Your task to perform on an android device: Go to privacy settings Image 0: 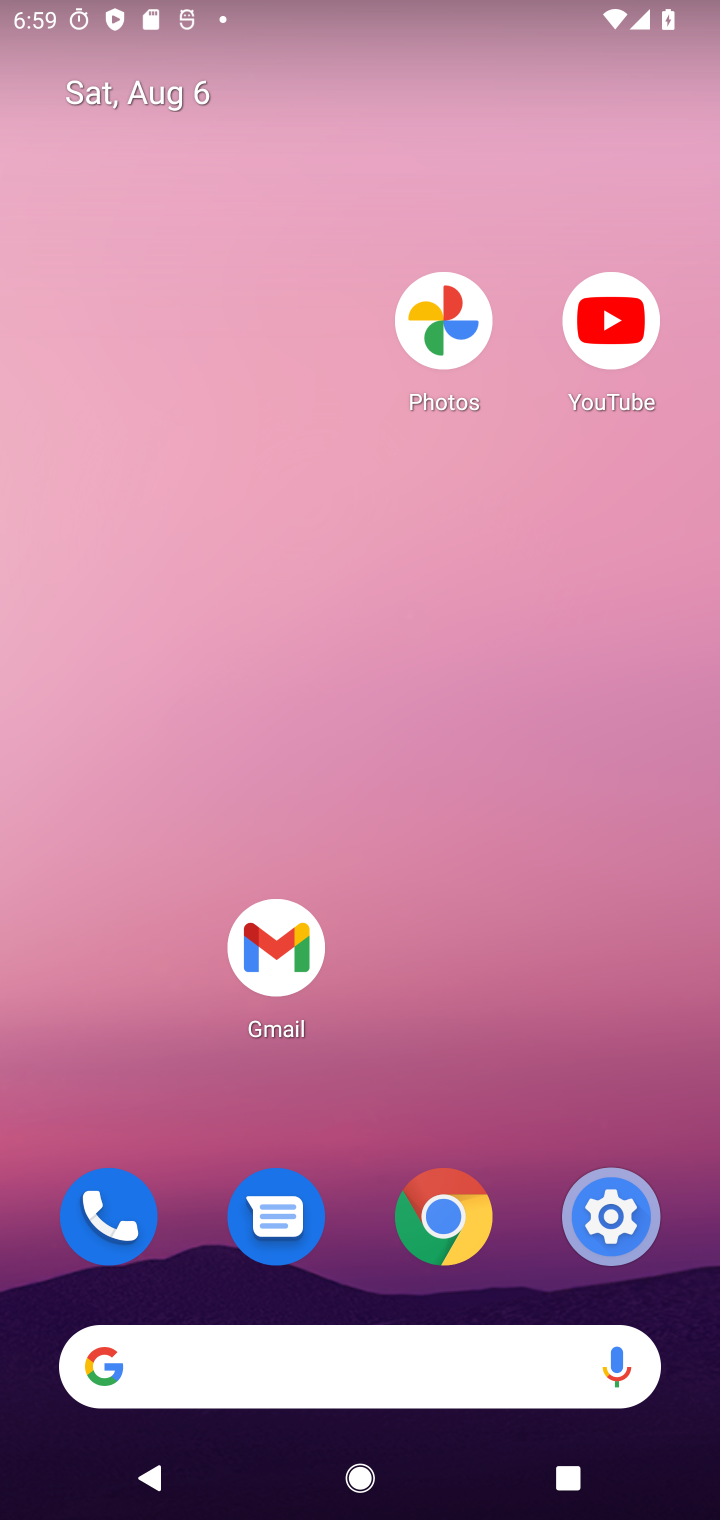
Step 0: drag from (499, 812) to (546, 98)
Your task to perform on an android device: Go to privacy settings Image 1: 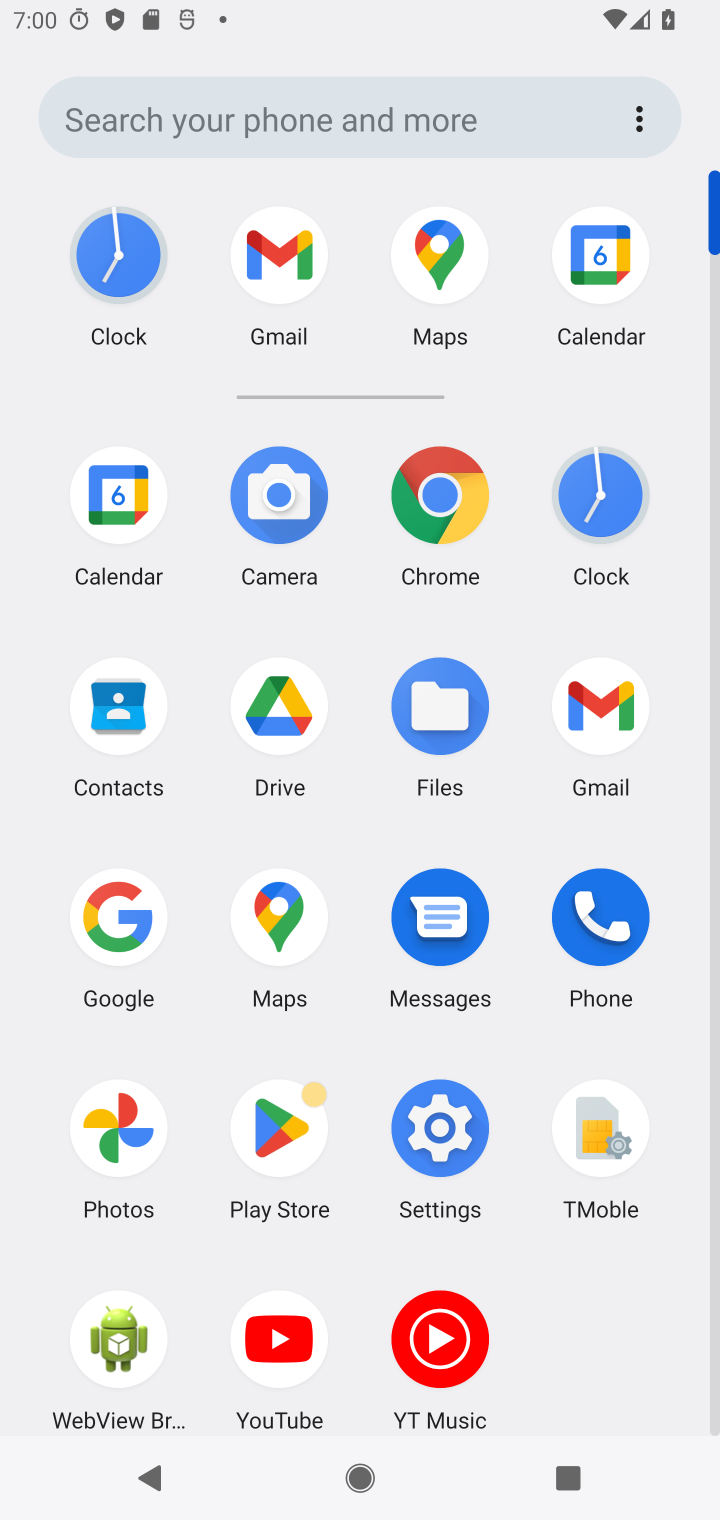
Step 1: click (441, 1124)
Your task to perform on an android device: Go to privacy settings Image 2: 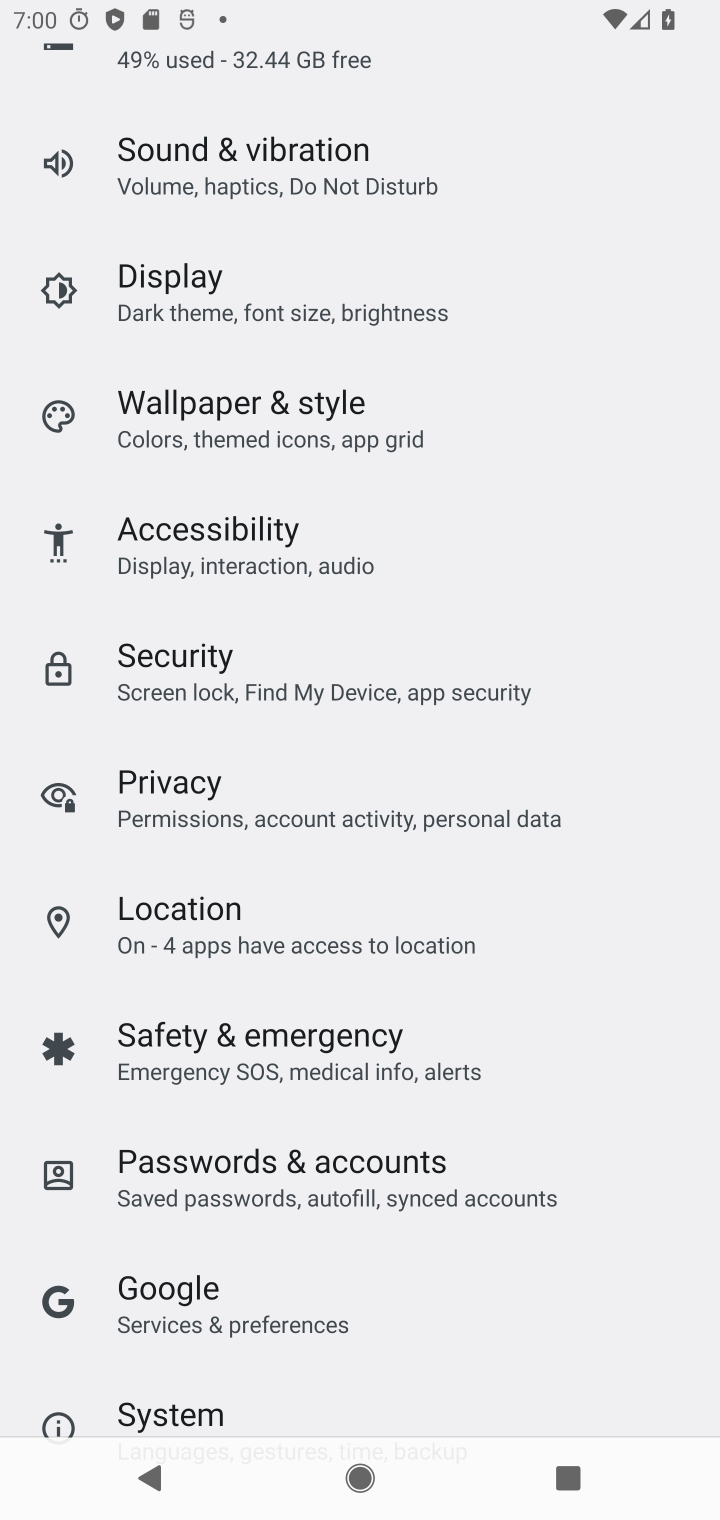
Step 2: click (314, 796)
Your task to perform on an android device: Go to privacy settings Image 3: 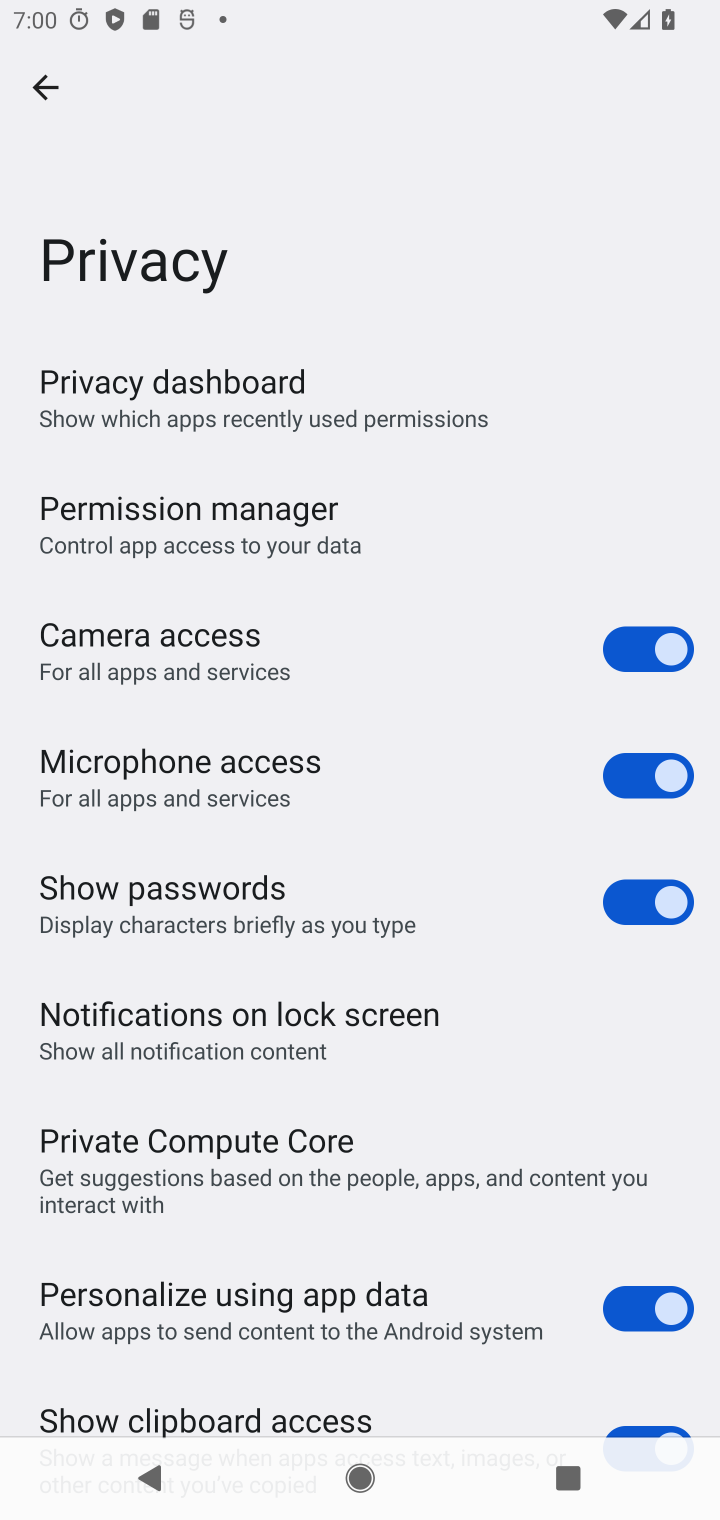
Step 3: task complete